Your task to perform on an android device: uninstall "Viber Messenger" Image 0: 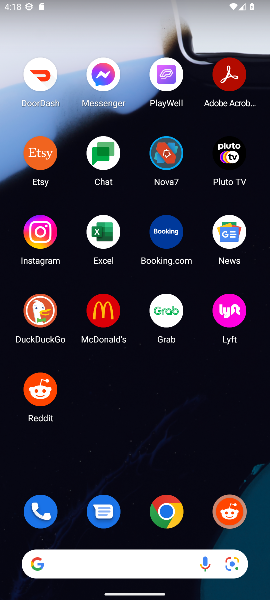
Step 0: drag from (133, 426) to (257, 455)
Your task to perform on an android device: uninstall "Viber Messenger" Image 1: 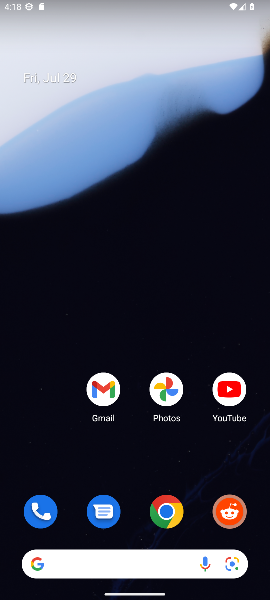
Step 1: drag from (125, 518) to (169, 223)
Your task to perform on an android device: uninstall "Viber Messenger" Image 2: 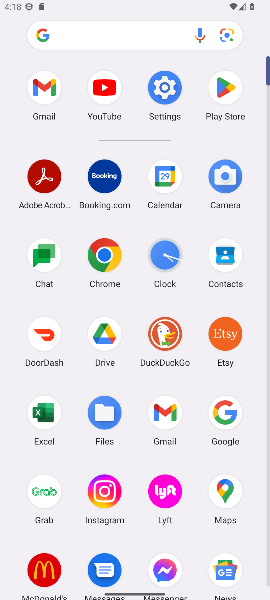
Step 2: click (214, 102)
Your task to perform on an android device: uninstall "Viber Messenger" Image 3: 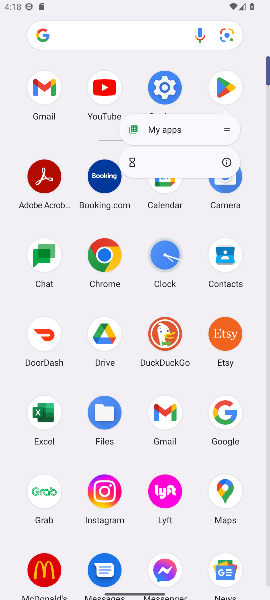
Step 3: click (217, 82)
Your task to perform on an android device: uninstall "Viber Messenger" Image 4: 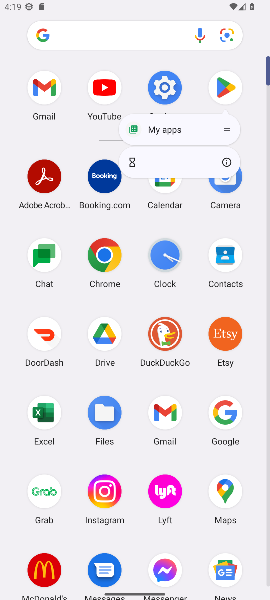
Step 4: click (233, 92)
Your task to perform on an android device: uninstall "Viber Messenger" Image 5: 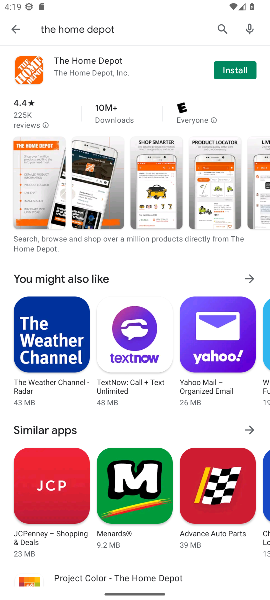
Step 5: click (13, 32)
Your task to perform on an android device: uninstall "Viber Messenger" Image 6: 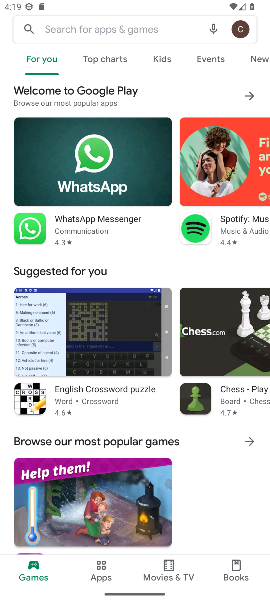
Step 6: click (62, 37)
Your task to perform on an android device: uninstall "Viber Messenger" Image 7: 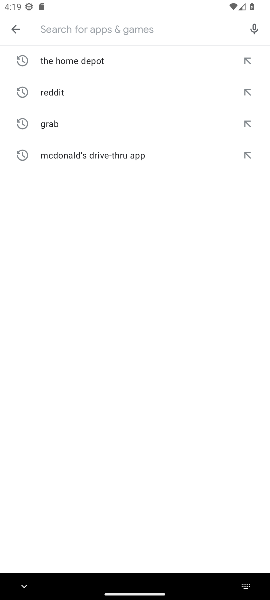
Step 7: type "Viber Messenger"
Your task to perform on an android device: uninstall "Viber Messenger" Image 8: 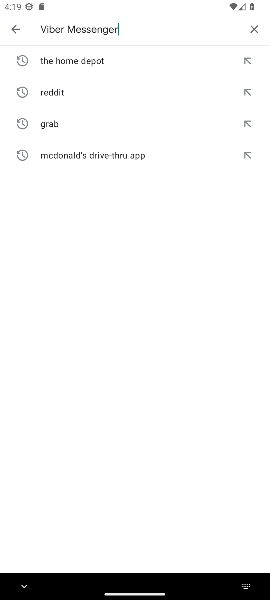
Step 8: type ""
Your task to perform on an android device: uninstall "Viber Messenger" Image 9: 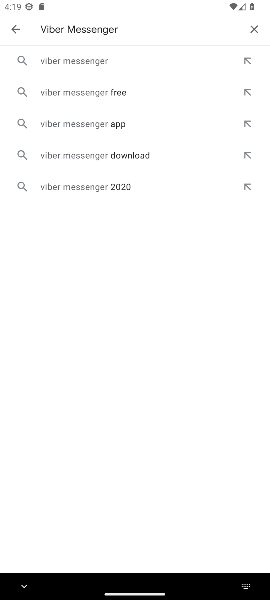
Step 9: click (108, 63)
Your task to perform on an android device: uninstall "Viber Messenger" Image 10: 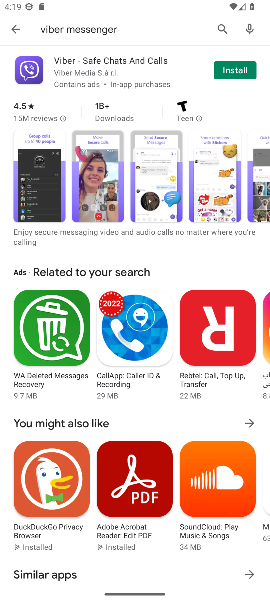
Step 10: task complete